Your task to perform on an android device: Open wifi settings Image 0: 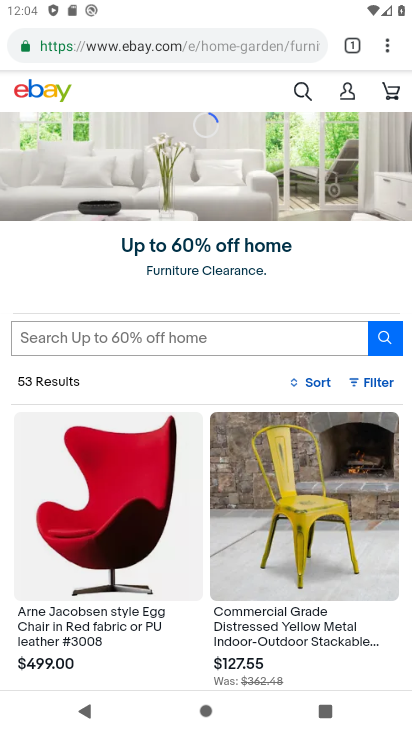
Step 0: press home button
Your task to perform on an android device: Open wifi settings Image 1: 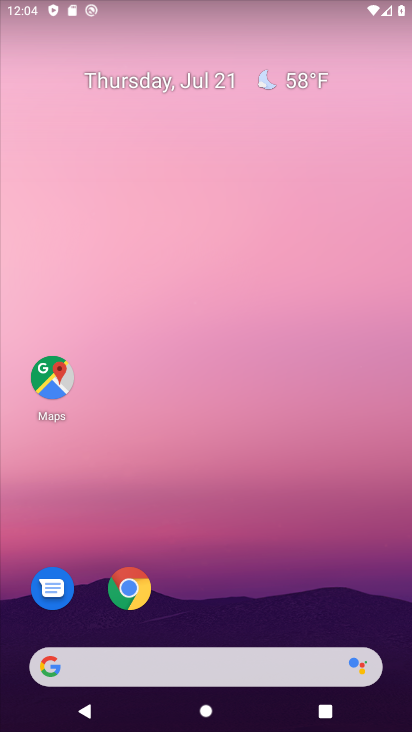
Step 1: drag from (241, 587) to (221, 163)
Your task to perform on an android device: Open wifi settings Image 2: 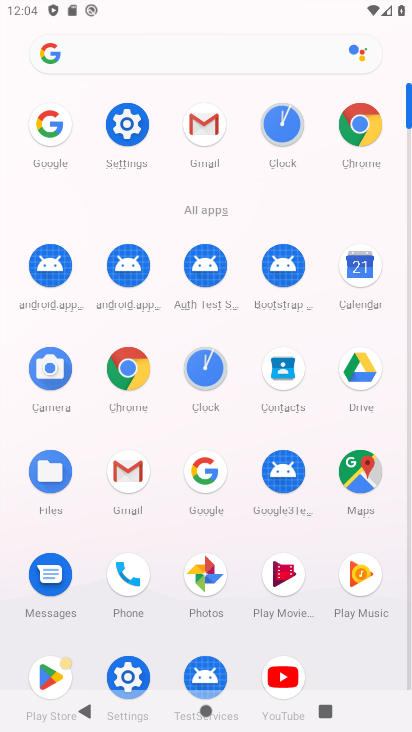
Step 2: click (129, 117)
Your task to perform on an android device: Open wifi settings Image 3: 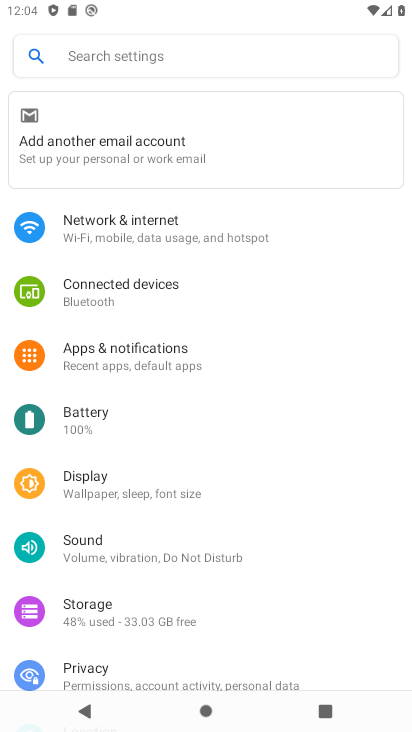
Step 3: click (80, 231)
Your task to perform on an android device: Open wifi settings Image 4: 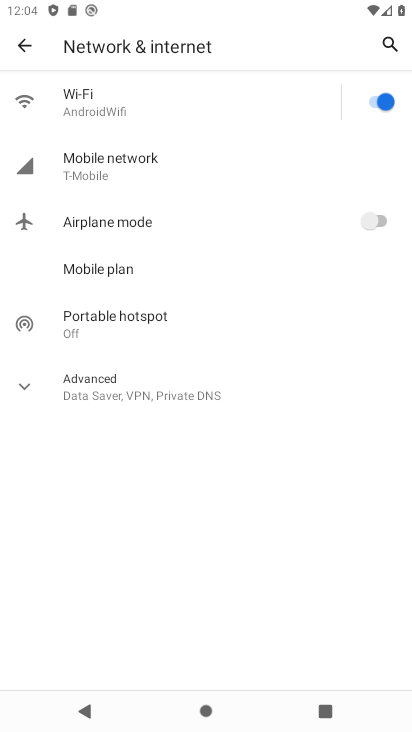
Step 4: click (190, 111)
Your task to perform on an android device: Open wifi settings Image 5: 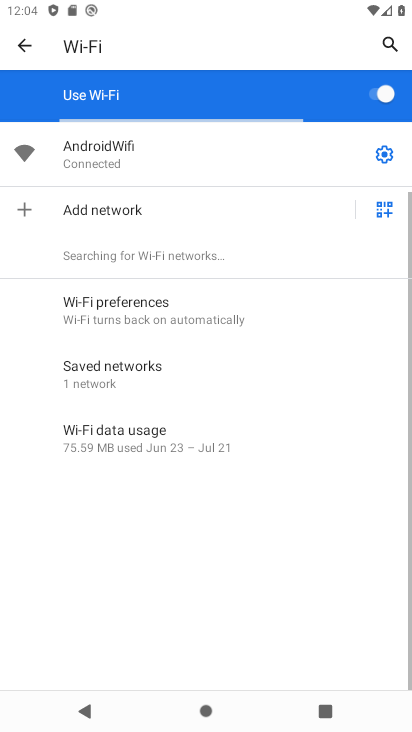
Step 5: task complete